Your task to perform on an android device: Go to notification settings Image 0: 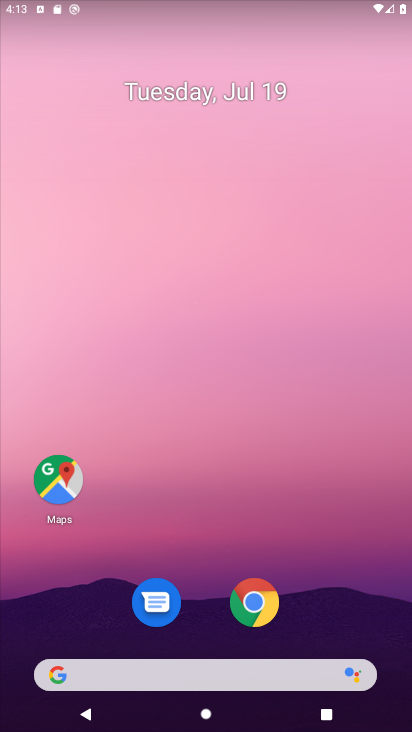
Step 0: click (386, 686)
Your task to perform on an android device: Go to notification settings Image 1: 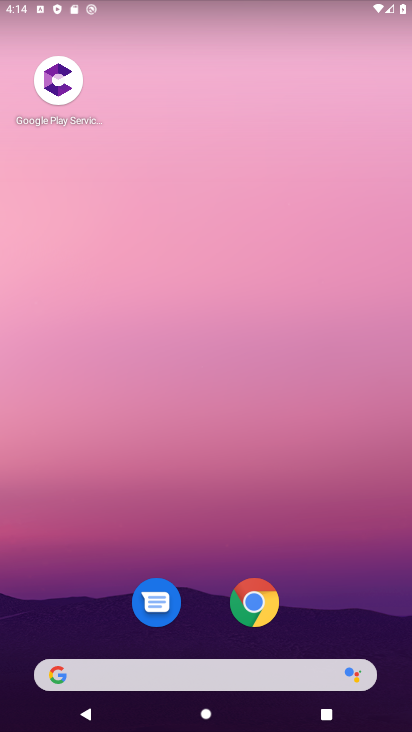
Step 1: click (172, 101)
Your task to perform on an android device: Go to notification settings Image 2: 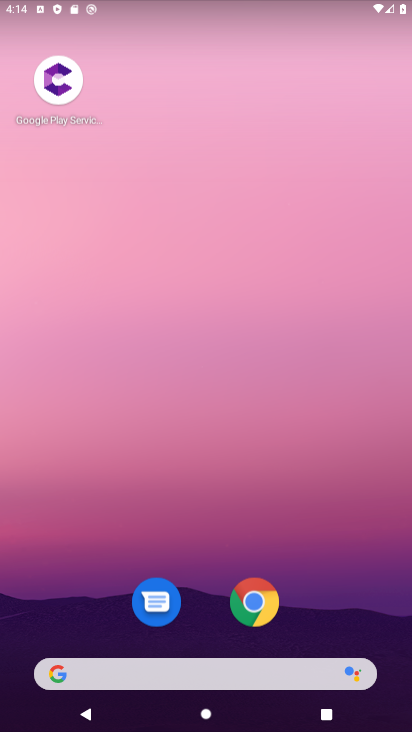
Step 2: drag from (200, 641) to (187, 120)
Your task to perform on an android device: Go to notification settings Image 3: 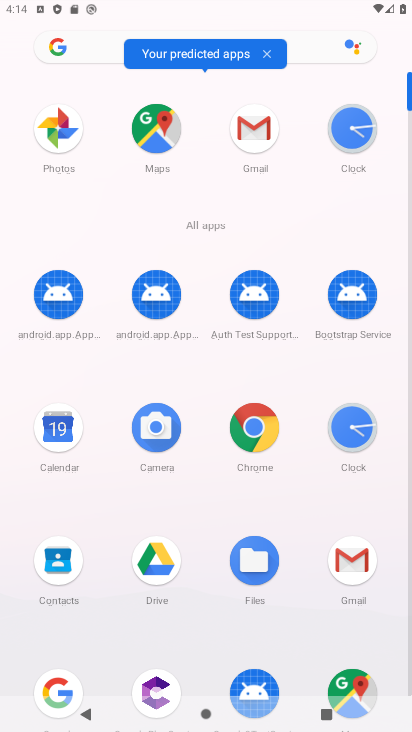
Step 3: drag from (167, 654) to (106, 148)
Your task to perform on an android device: Go to notification settings Image 4: 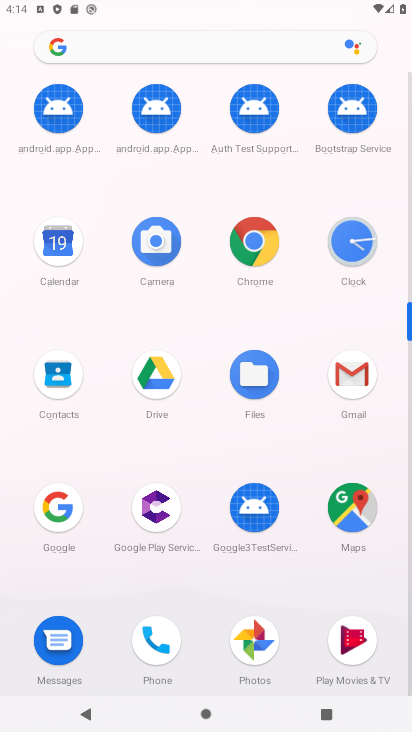
Step 4: drag from (191, 97) to (219, 692)
Your task to perform on an android device: Go to notification settings Image 5: 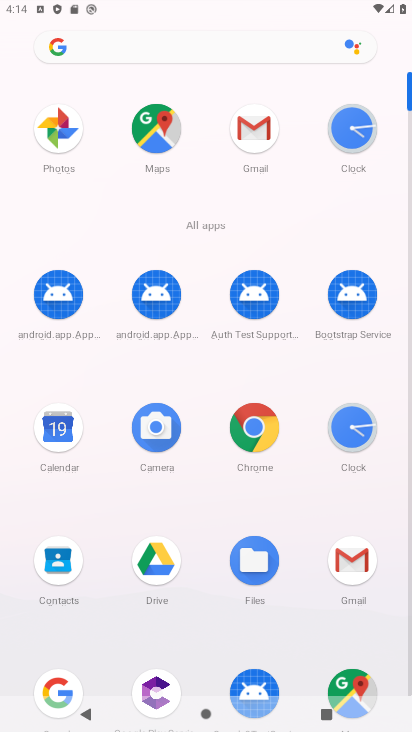
Step 5: drag from (150, 351) to (123, 124)
Your task to perform on an android device: Go to notification settings Image 6: 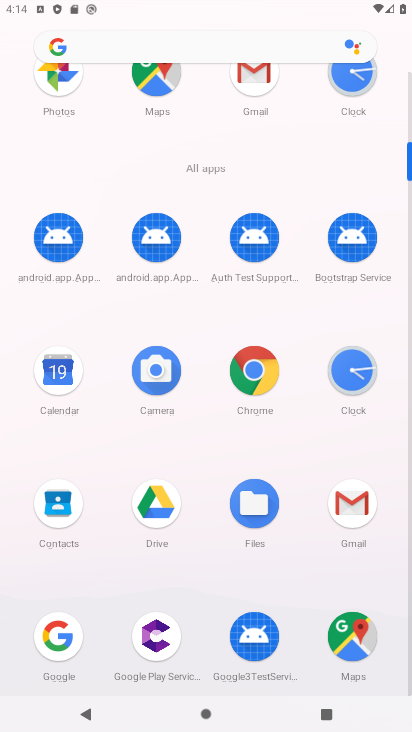
Step 6: drag from (202, 596) to (152, 298)
Your task to perform on an android device: Go to notification settings Image 7: 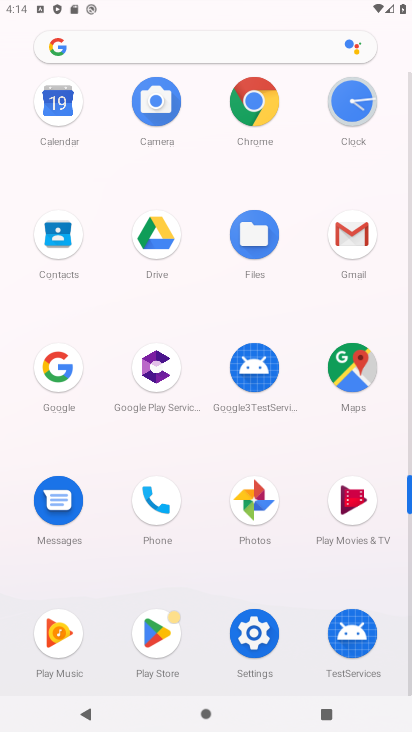
Step 7: click (241, 631)
Your task to perform on an android device: Go to notification settings Image 8: 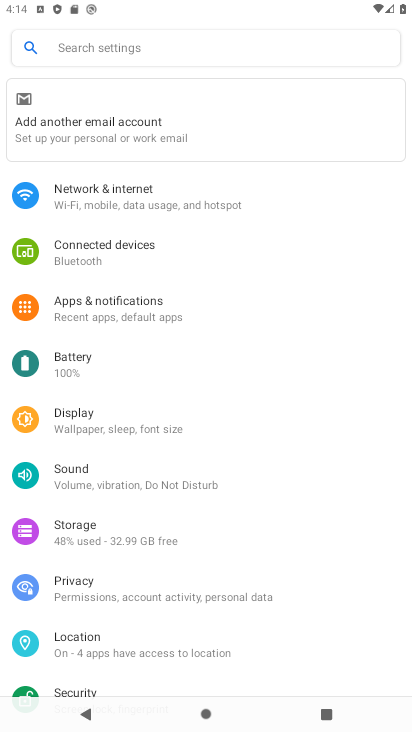
Step 8: click (183, 303)
Your task to perform on an android device: Go to notification settings Image 9: 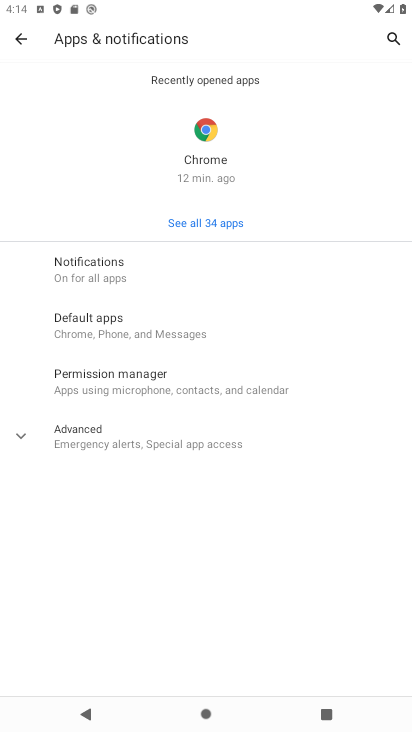
Step 9: task complete